Your task to perform on an android device: delete the emails in spam in the gmail app Image 0: 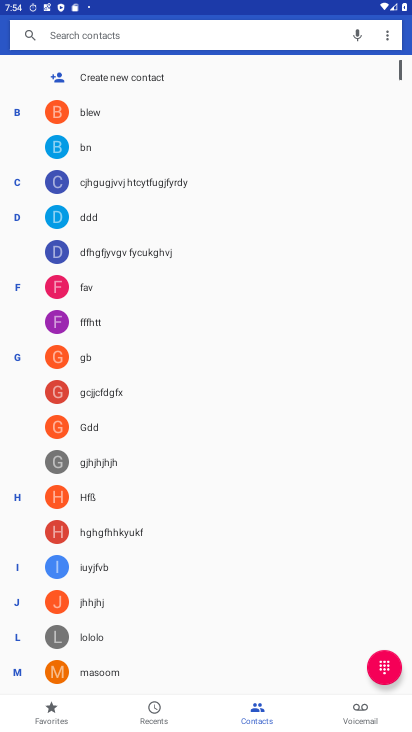
Step 0: press home button
Your task to perform on an android device: delete the emails in spam in the gmail app Image 1: 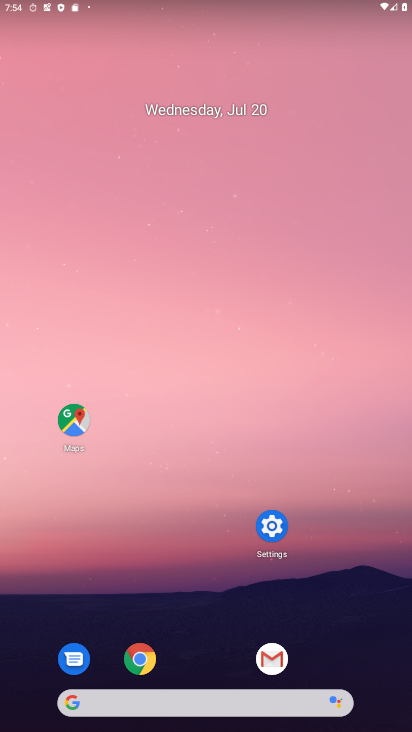
Step 1: click (281, 649)
Your task to perform on an android device: delete the emails in spam in the gmail app Image 2: 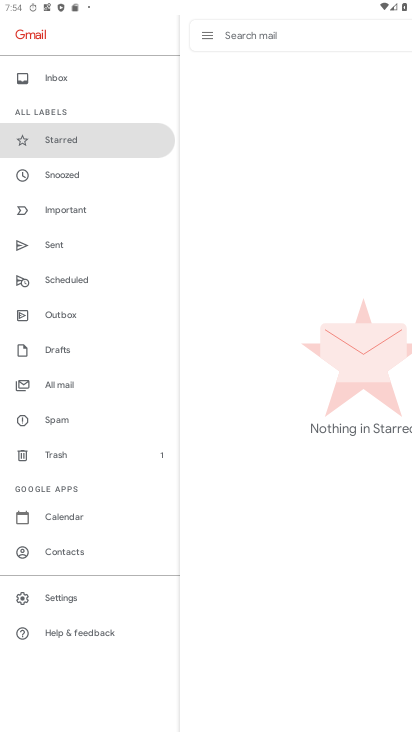
Step 2: click (57, 411)
Your task to perform on an android device: delete the emails in spam in the gmail app Image 3: 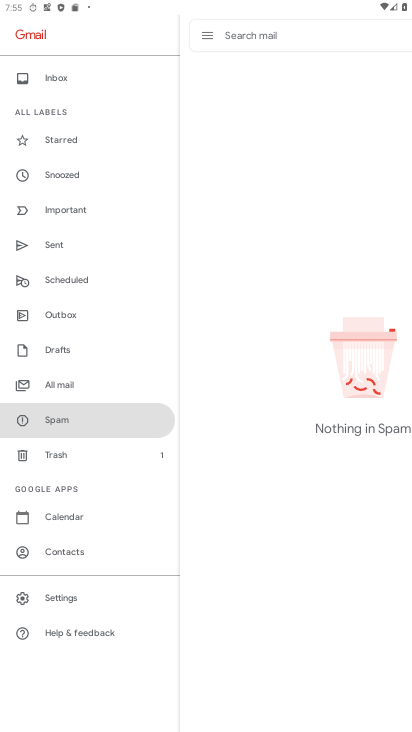
Step 3: task complete